Your task to perform on an android device: toggle location history Image 0: 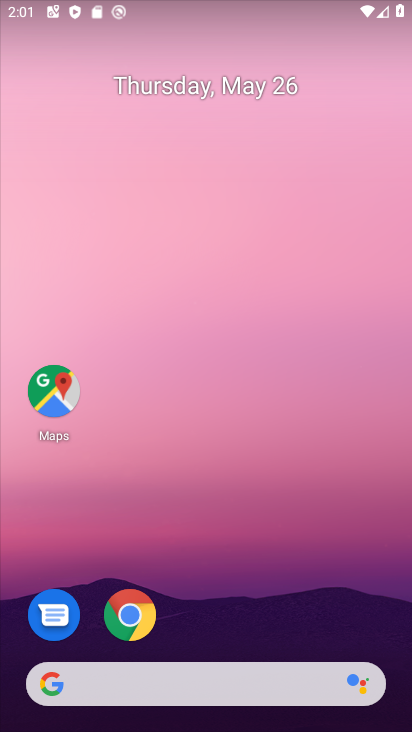
Step 0: press home button
Your task to perform on an android device: toggle location history Image 1: 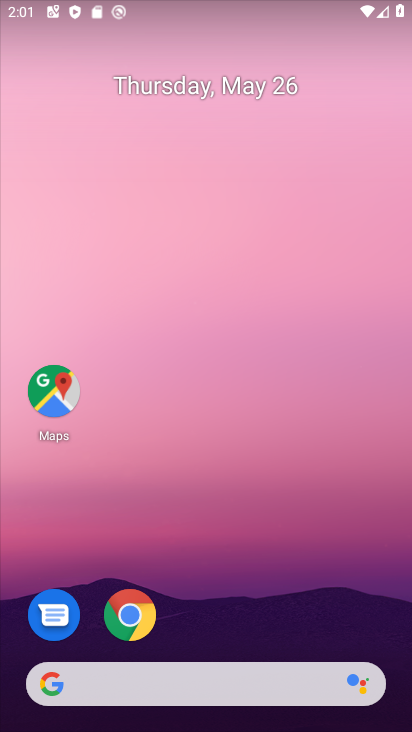
Step 1: drag from (208, 644) to (223, 84)
Your task to perform on an android device: toggle location history Image 2: 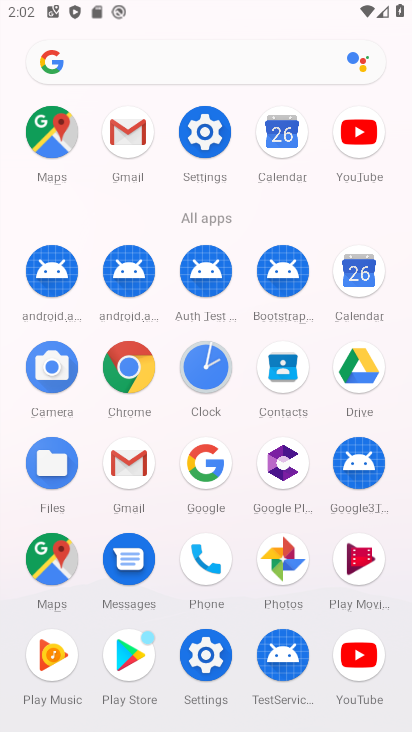
Step 2: click (202, 124)
Your task to perform on an android device: toggle location history Image 3: 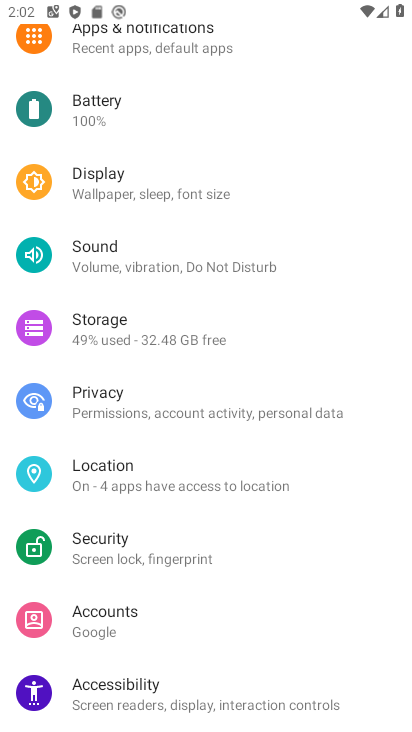
Step 3: click (153, 472)
Your task to perform on an android device: toggle location history Image 4: 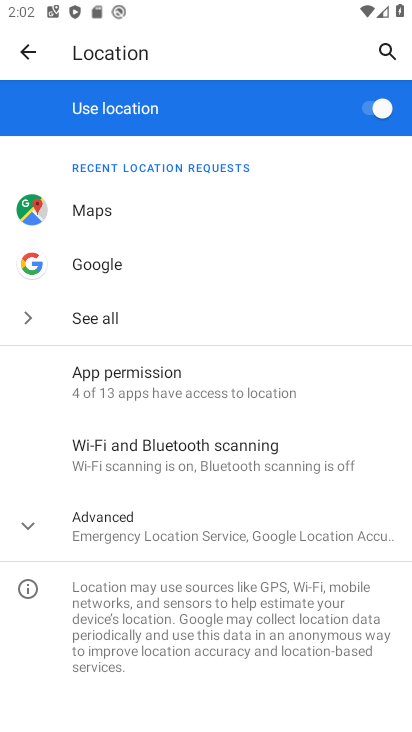
Step 4: click (37, 524)
Your task to perform on an android device: toggle location history Image 5: 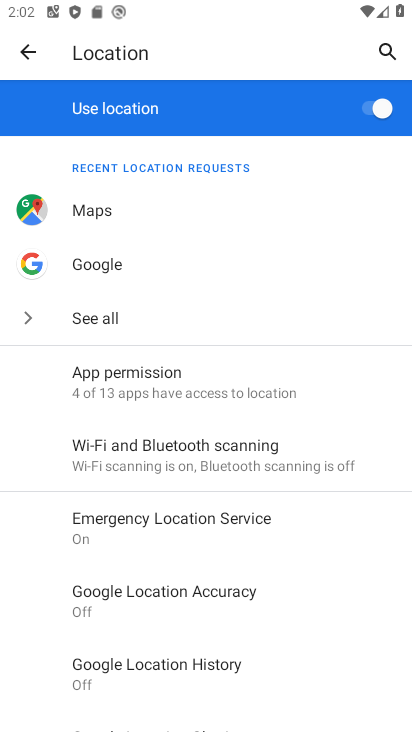
Step 5: click (204, 661)
Your task to perform on an android device: toggle location history Image 6: 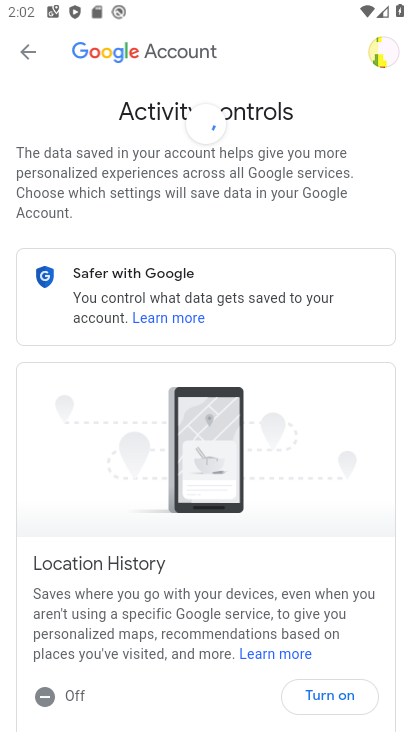
Step 6: drag from (240, 624) to (248, 215)
Your task to perform on an android device: toggle location history Image 7: 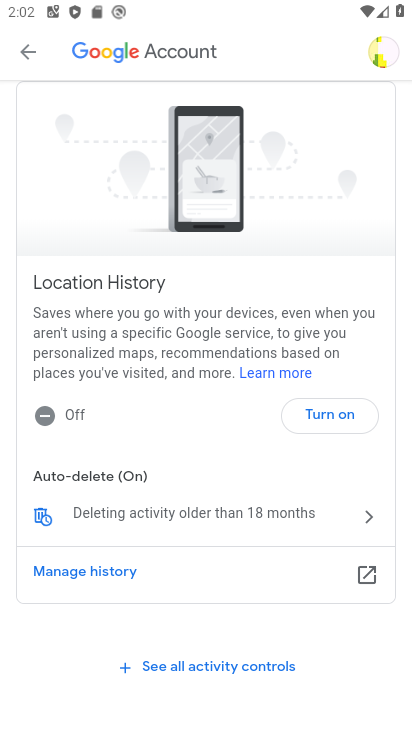
Step 7: click (327, 406)
Your task to perform on an android device: toggle location history Image 8: 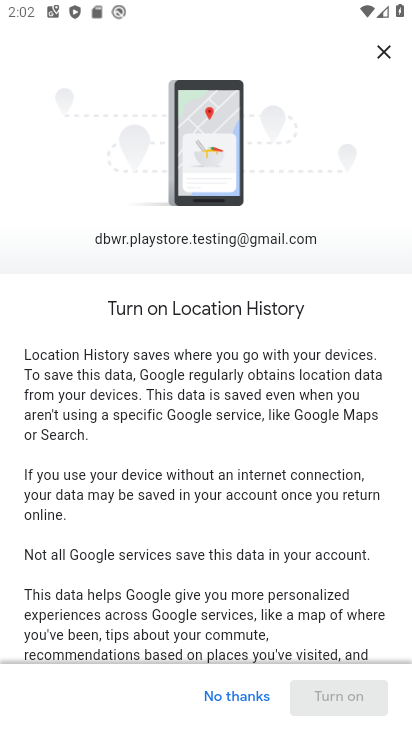
Step 8: drag from (301, 627) to (333, 144)
Your task to perform on an android device: toggle location history Image 9: 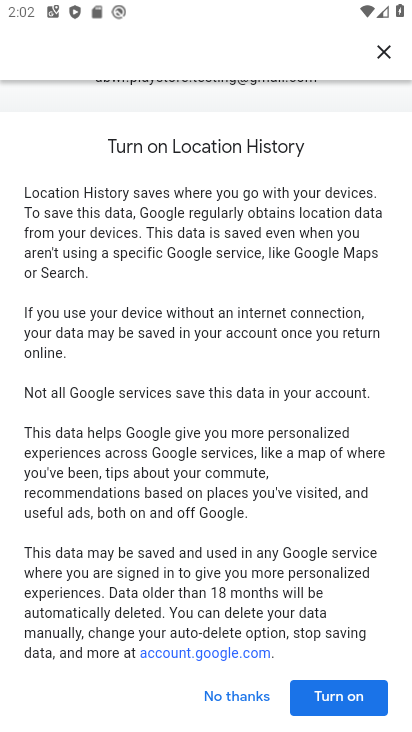
Step 9: click (343, 703)
Your task to perform on an android device: toggle location history Image 10: 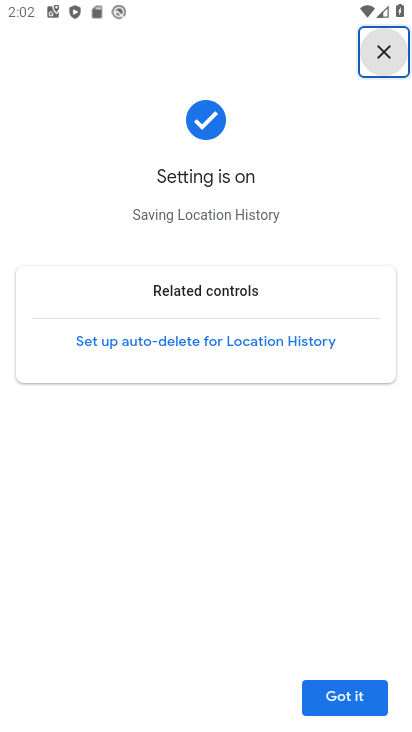
Step 10: task complete